Your task to perform on an android device: turn on the 24-hour format for clock Image 0: 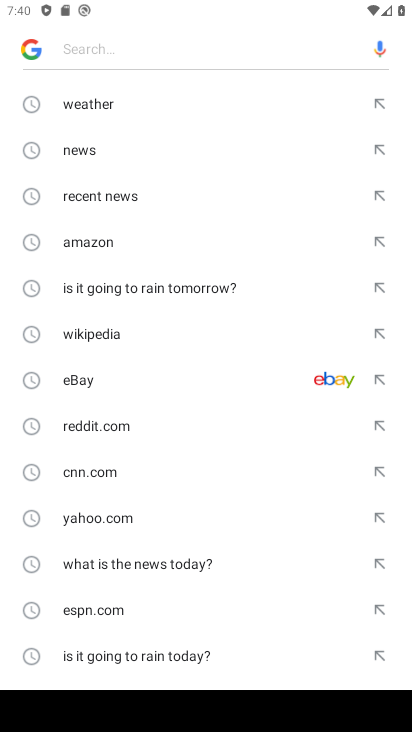
Step 0: task complete